Your task to perform on an android device: delete a single message in the gmail app Image 0: 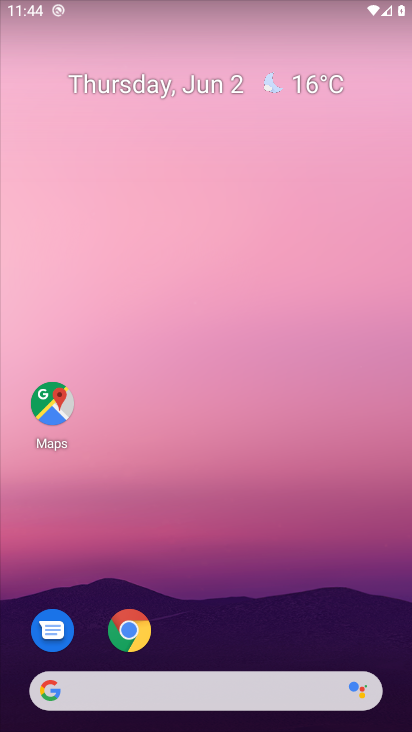
Step 0: drag from (216, 649) to (332, 44)
Your task to perform on an android device: delete a single message in the gmail app Image 1: 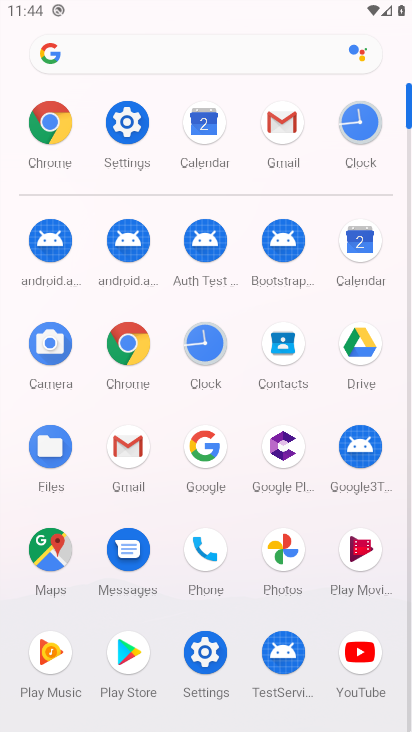
Step 1: click (127, 465)
Your task to perform on an android device: delete a single message in the gmail app Image 2: 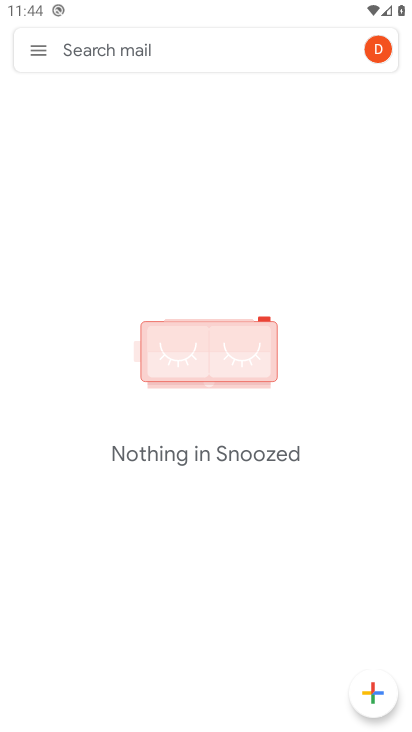
Step 2: click (32, 43)
Your task to perform on an android device: delete a single message in the gmail app Image 3: 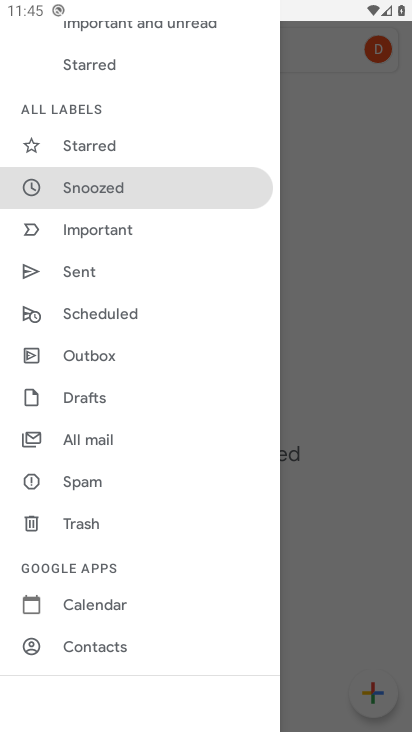
Step 3: click (100, 446)
Your task to perform on an android device: delete a single message in the gmail app Image 4: 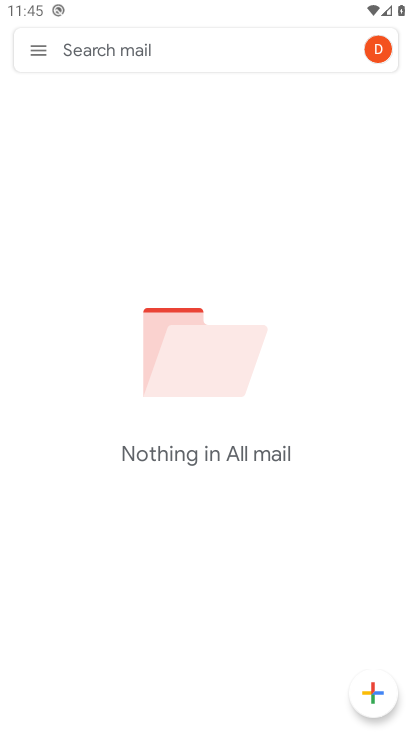
Step 4: task complete